Your task to perform on an android device: What's the weather today? Image 0: 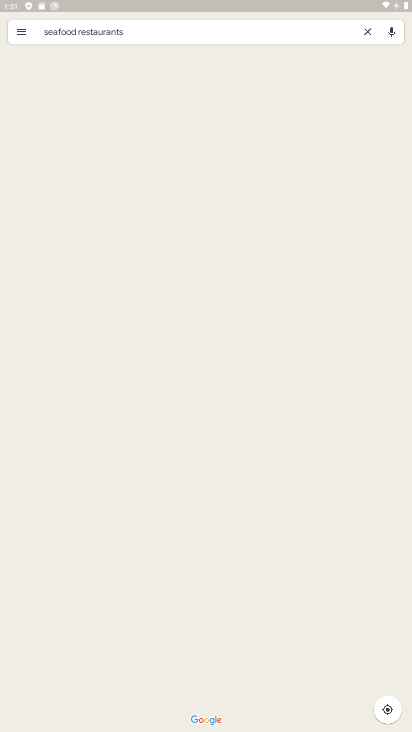
Step 0: press home button
Your task to perform on an android device: What's the weather today? Image 1: 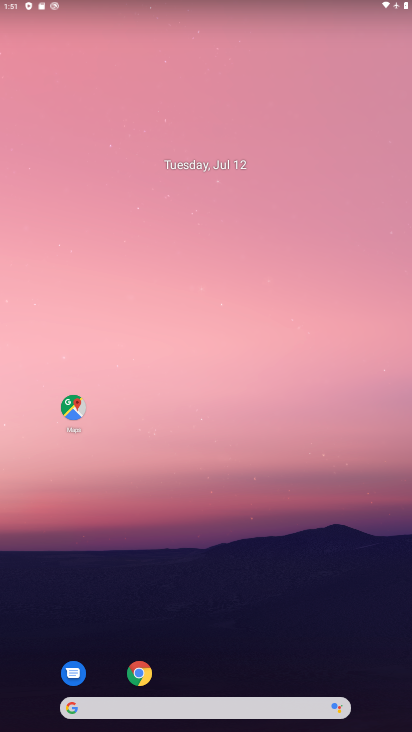
Step 1: click (127, 669)
Your task to perform on an android device: What's the weather today? Image 2: 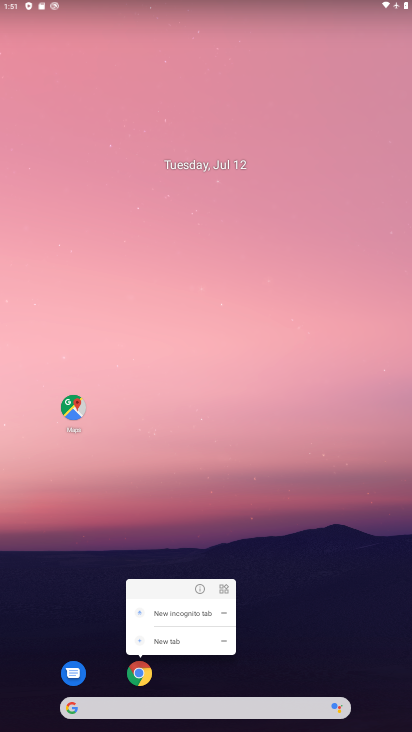
Step 2: click (158, 663)
Your task to perform on an android device: What's the weather today? Image 3: 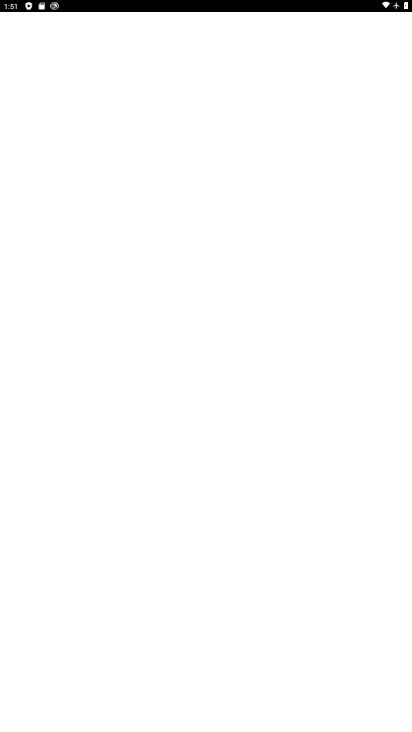
Step 3: click (135, 674)
Your task to perform on an android device: What's the weather today? Image 4: 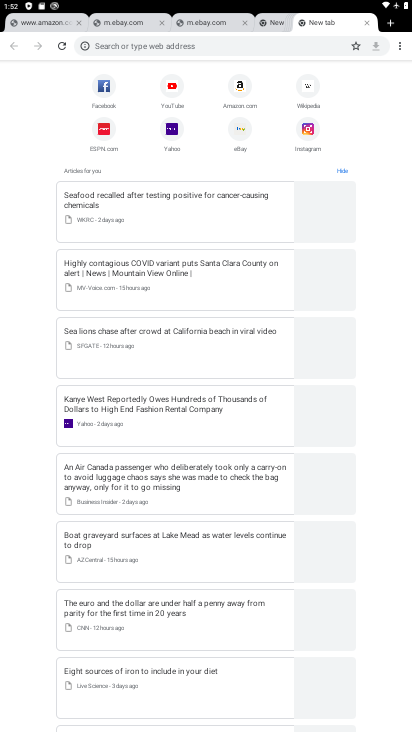
Step 4: click (396, 42)
Your task to perform on an android device: What's the weather today? Image 5: 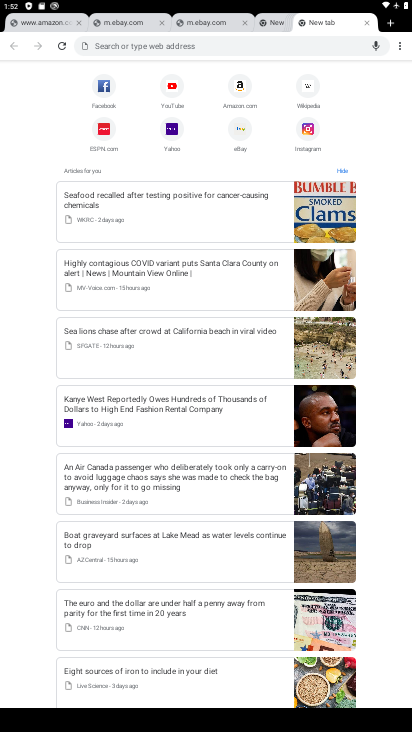
Step 5: click (242, 47)
Your task to perform on an android device: What's the weather today? Image 6: 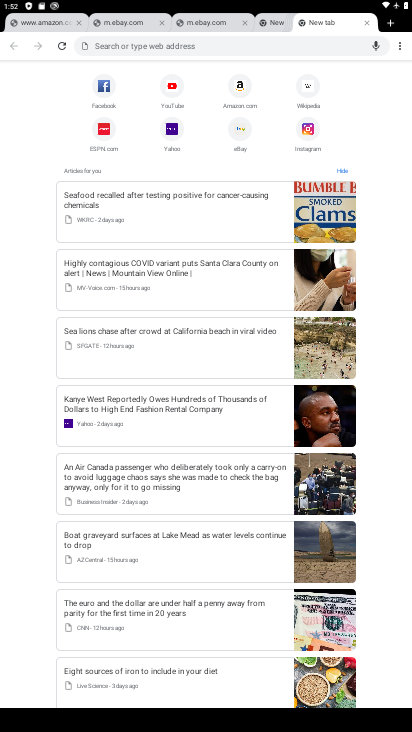
Step 6: type "What's the weather today "
Your task to perform on an android device: What's the weather today? Image 7: 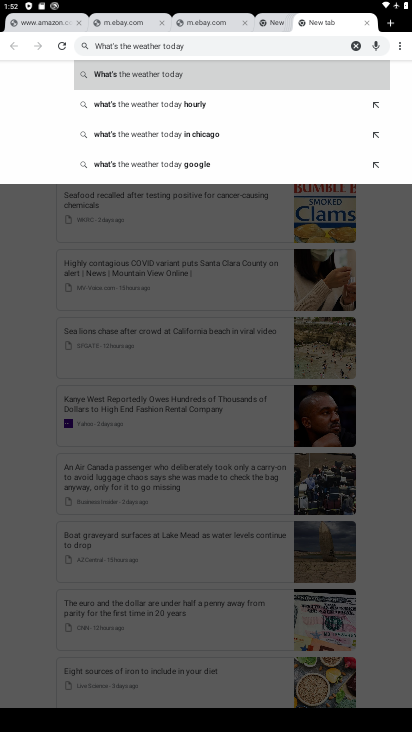
Step 7: click (181, 71)
Your task to perform on an android device: What's the weather today? Image 8: 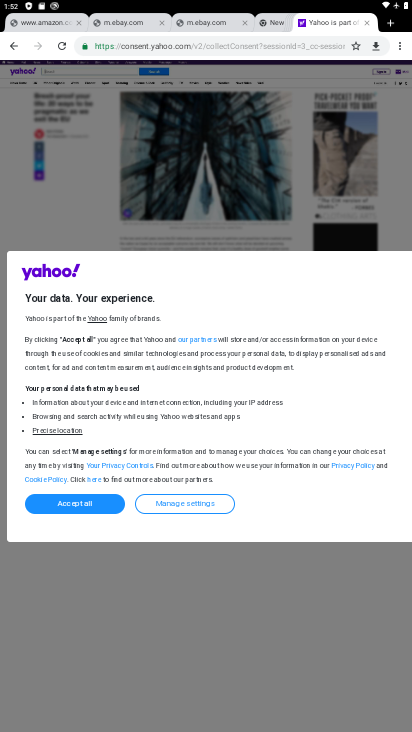
Step 8: click (105, 506)
Your task to perform on an android device: What's the weather today? Image 9: 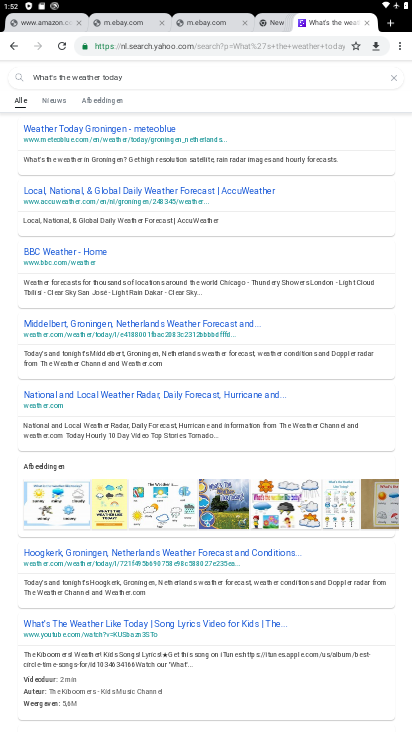
Step 9: task complete